Your task to perform on an android device: check battery use Image 0: 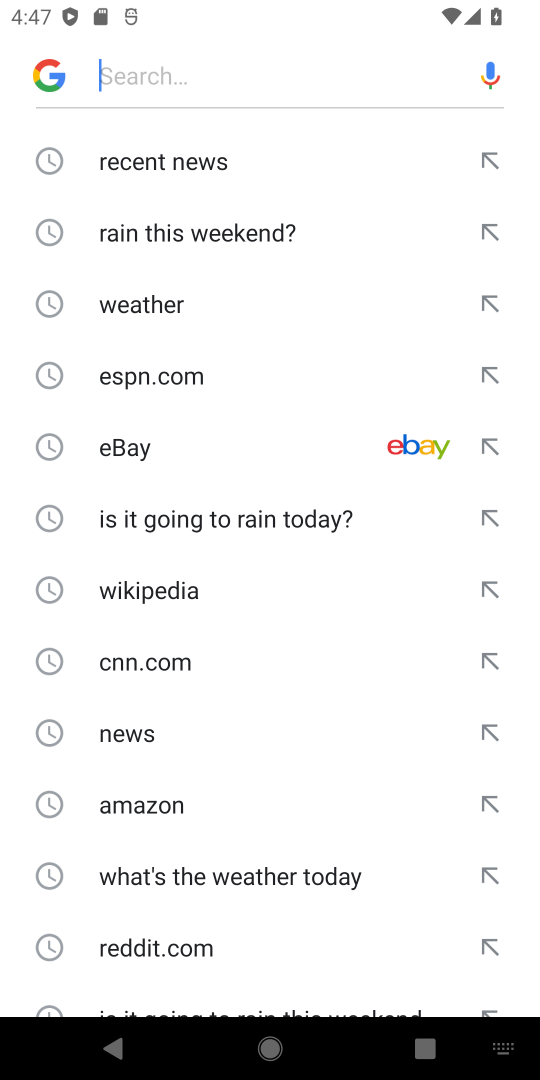
Step 0: press home button
Your task to perform on an android device: check battery use Image 1: 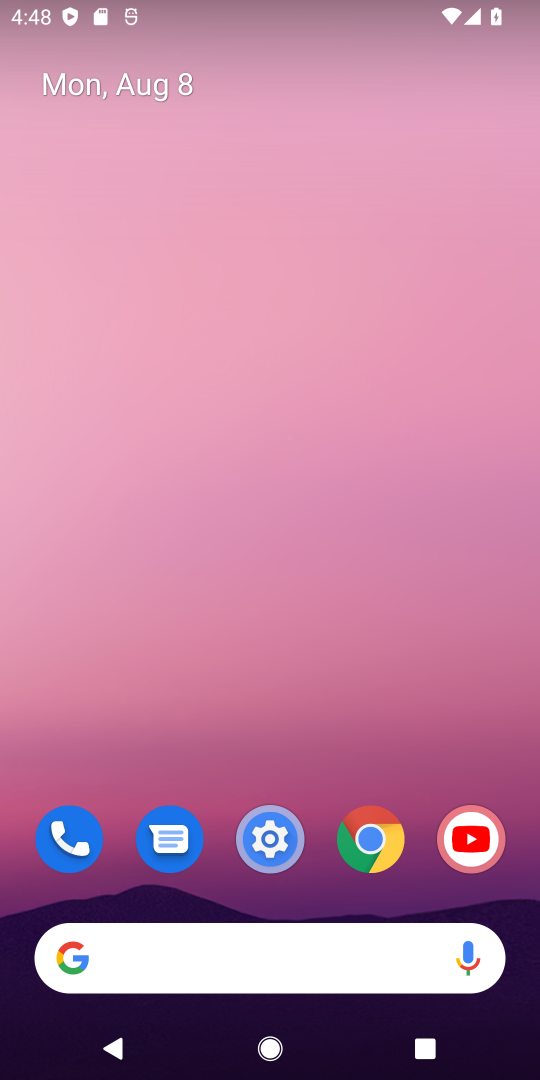
Step 1: drag from (238, 775) to (213, 66)
Your task to perform on an android device: check battery use Image 2: 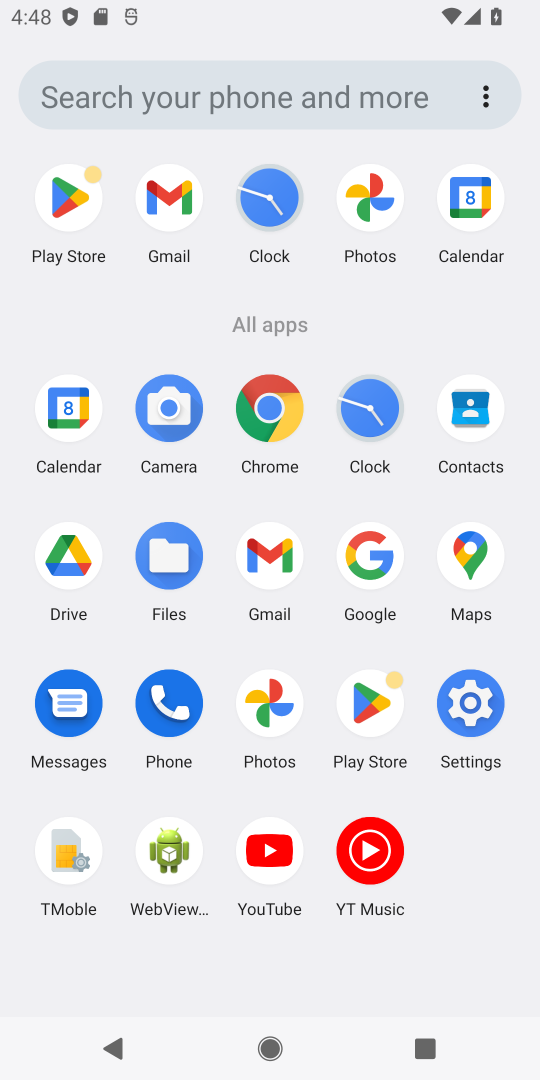
Step 2: click (478, 703)
Your task to perform on an android device: check battery use Image 3: 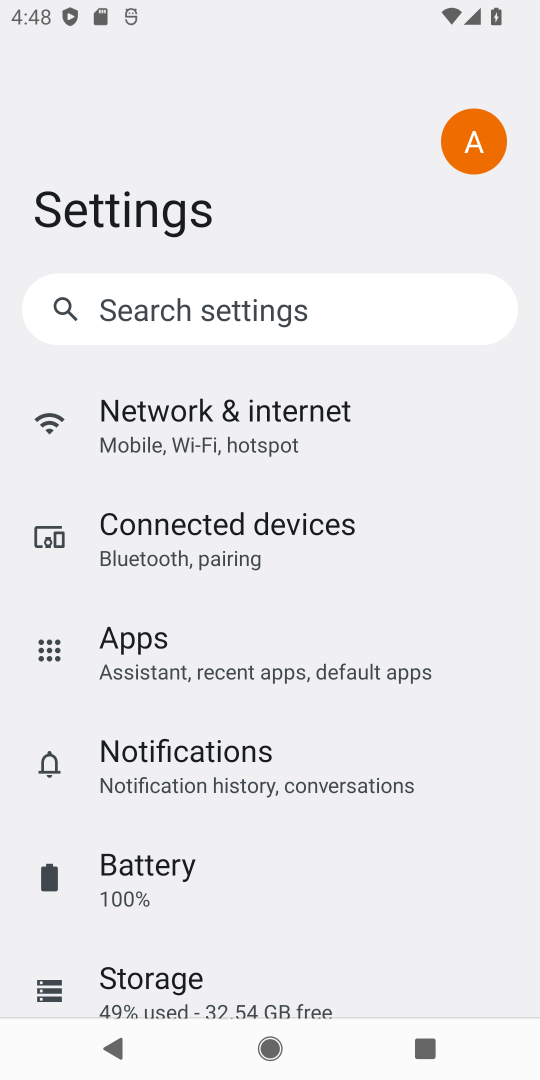
Step 3: click (165, 896)
Your task to perform on an android device: check battery use Image 4: 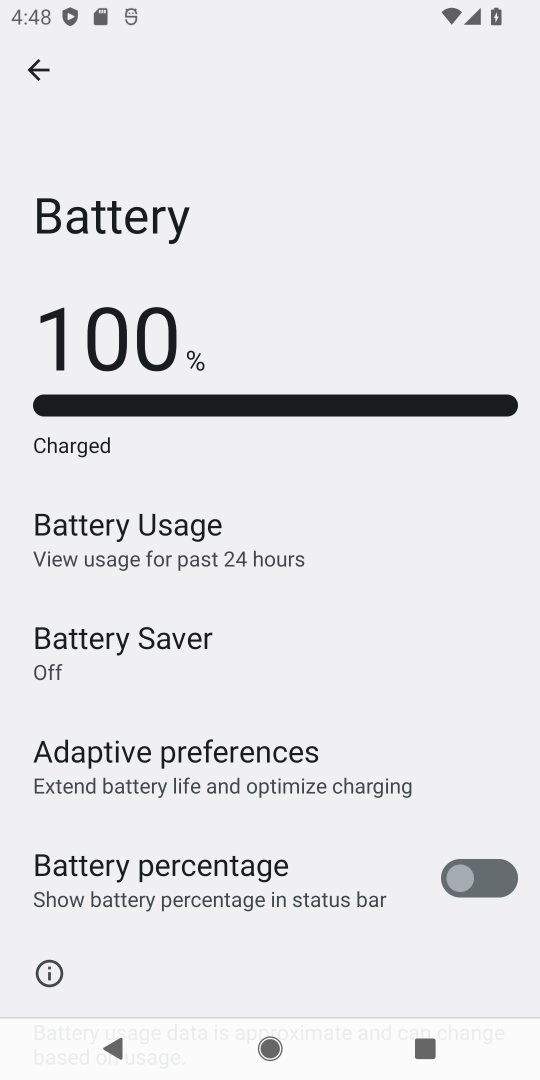
Step 4: drag from (258, 598) to (291, 109)
Your task to perform on an android device: check battery use Image 5: 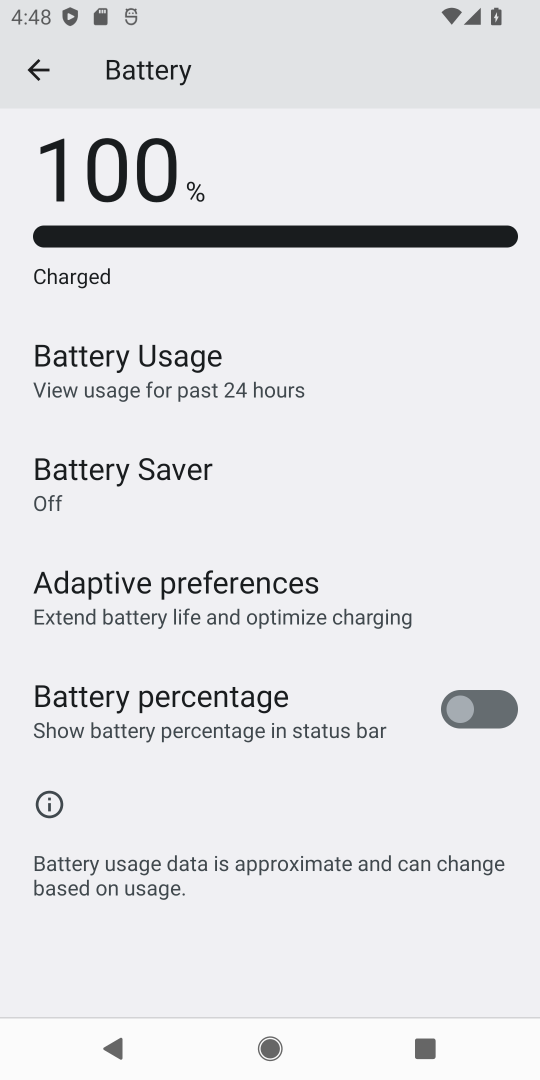
Step 5: click (188, 357)
Your task to perform on an android device: check battery use Image 6: 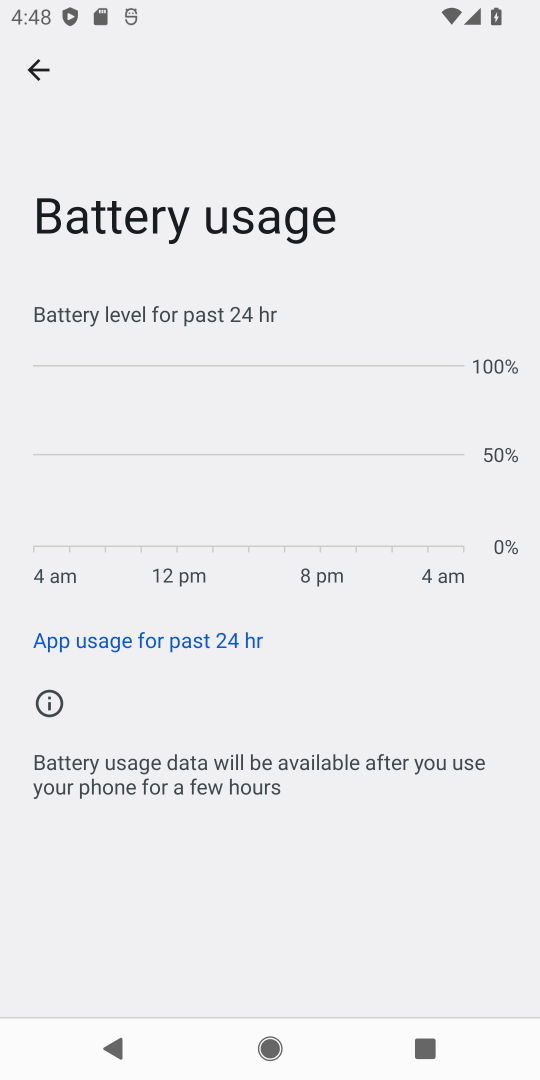
Step 6: task complete